Your task to perform on an android device: Show the shopping cart on costco.com. Add "razer blackwidow" to the cart on costco.com Image 0: 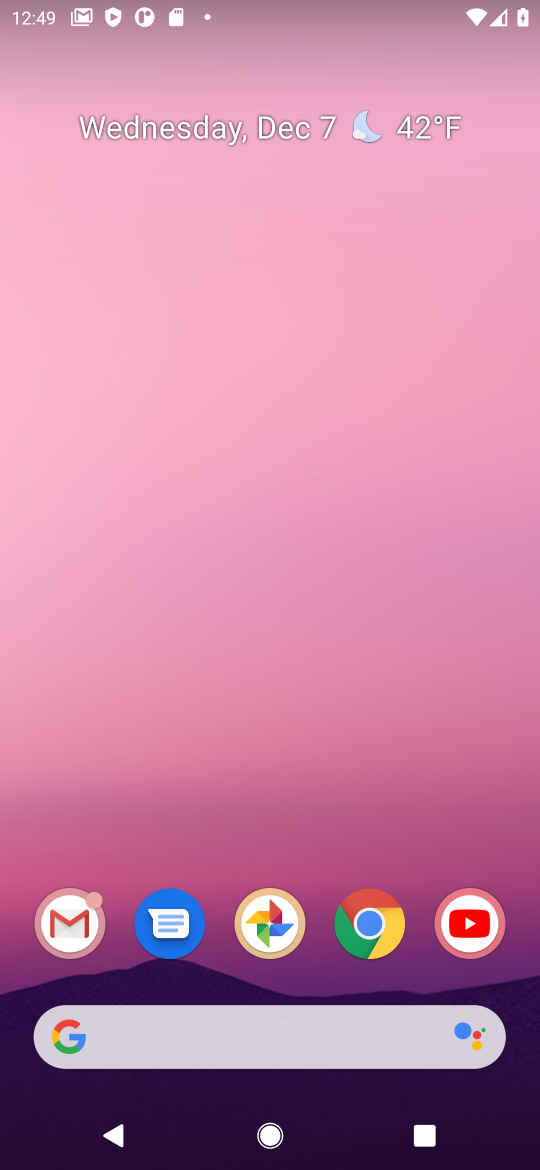
Step 0: click (367, 918)
Your task to perform on an android device: Show the shopping cart on costco.com. Add "razer blackwidow" to the cart on costco.com Image 1: 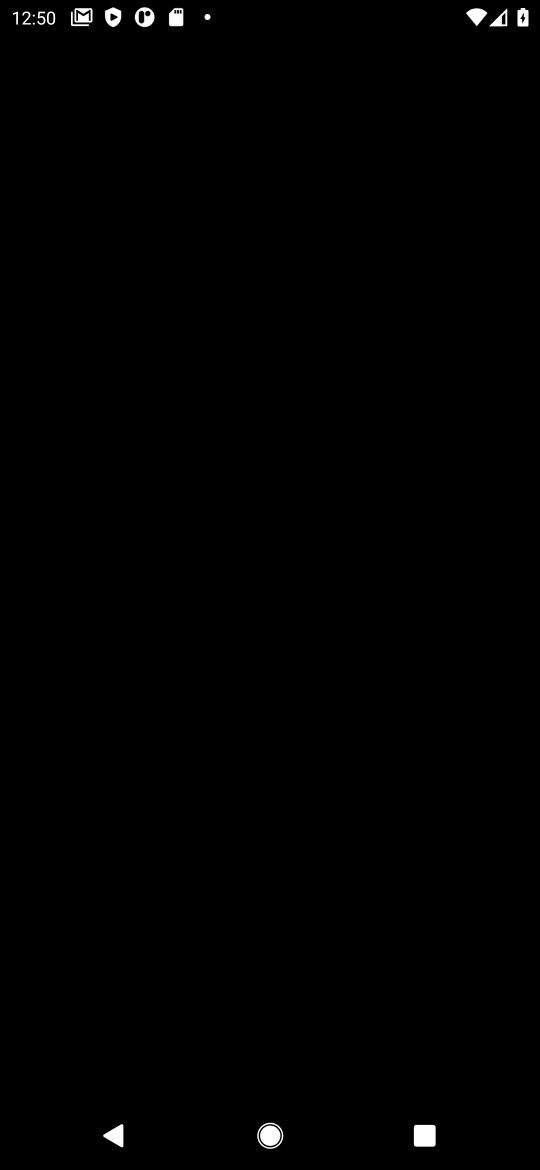
Step 1: press home button
Your task to perform on an android device: Show the shopping cart on costco.com. Add "razer blackwidow" to the cart on costco.com Image 2: 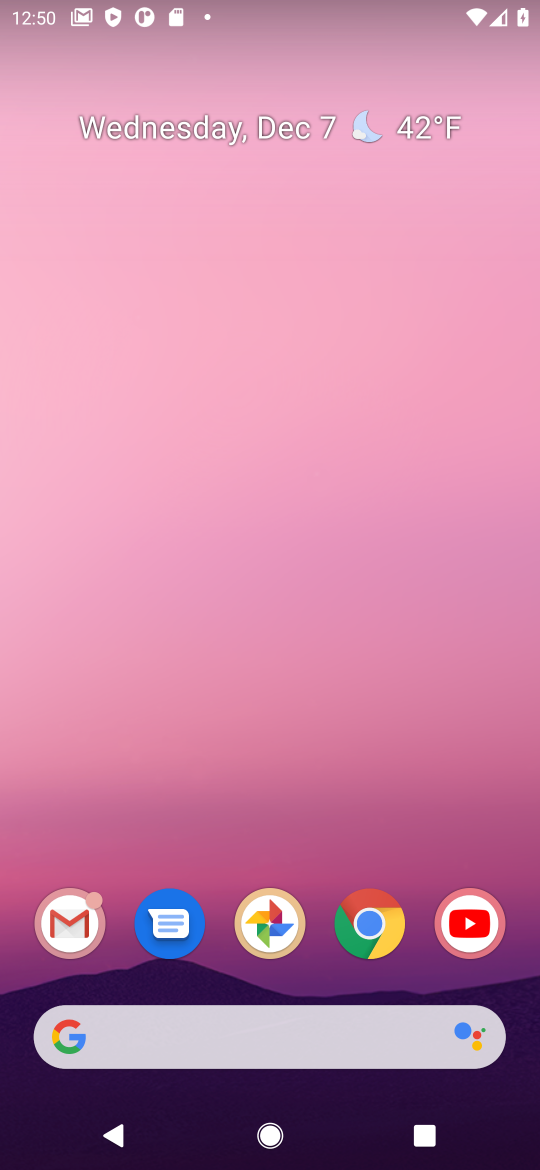
Step 2: click (363, 910)
Your task to perform on an android device: Show the shopping cart on costco.com. Add "razer blackwidow" to the cart on costco.com Image 3: 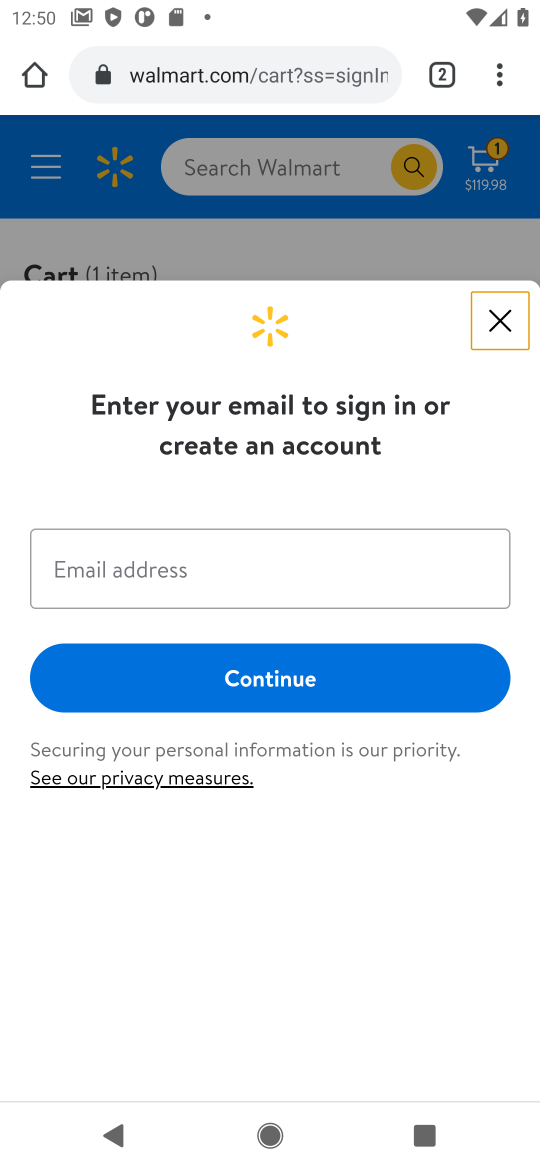
Step 3: click (501, 318)
Your task to perform on an android device: Show the shopping cart on costco.com. Add "razer blackwidow" to the cart on costco.com Image 4: 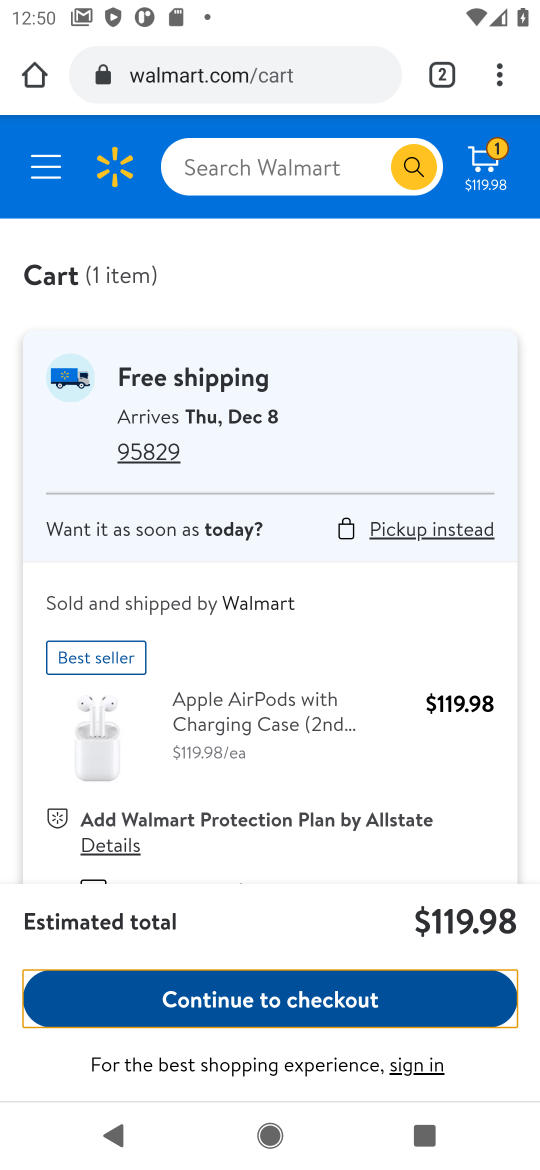
Step 4: click (302, 70)
Your task to perform on an android device: Show the shopping cart on costco.com. Add "razer blackwidow" to the cart on costco.com Image 5: 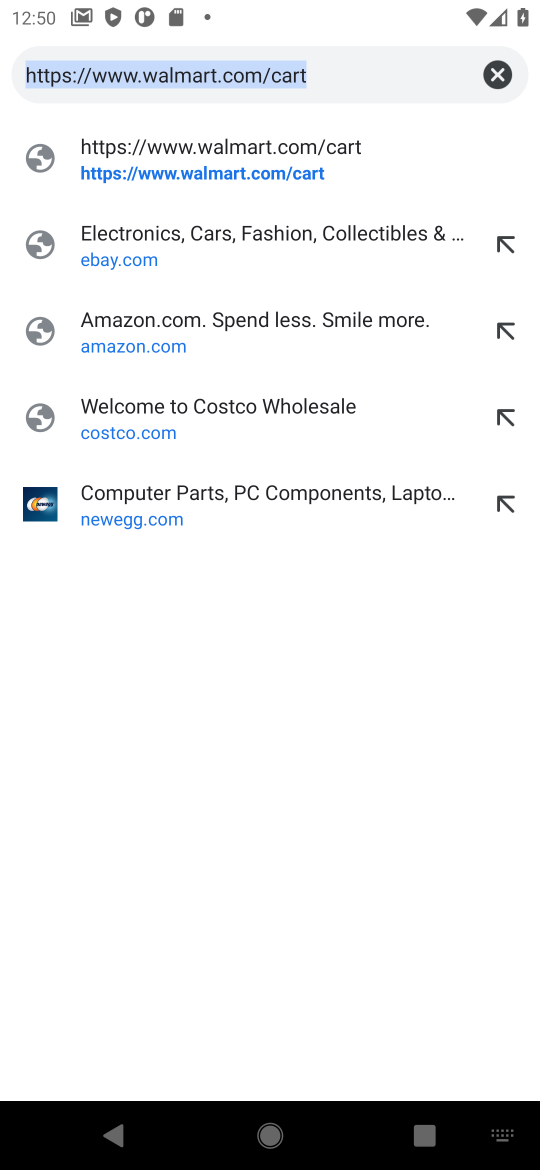
Step 5: click (113, 422)
Your task to perform on an android device: Show the shopping cart on costco.com. Add "razer blackwidow" to the cart on costco.com Image 6: 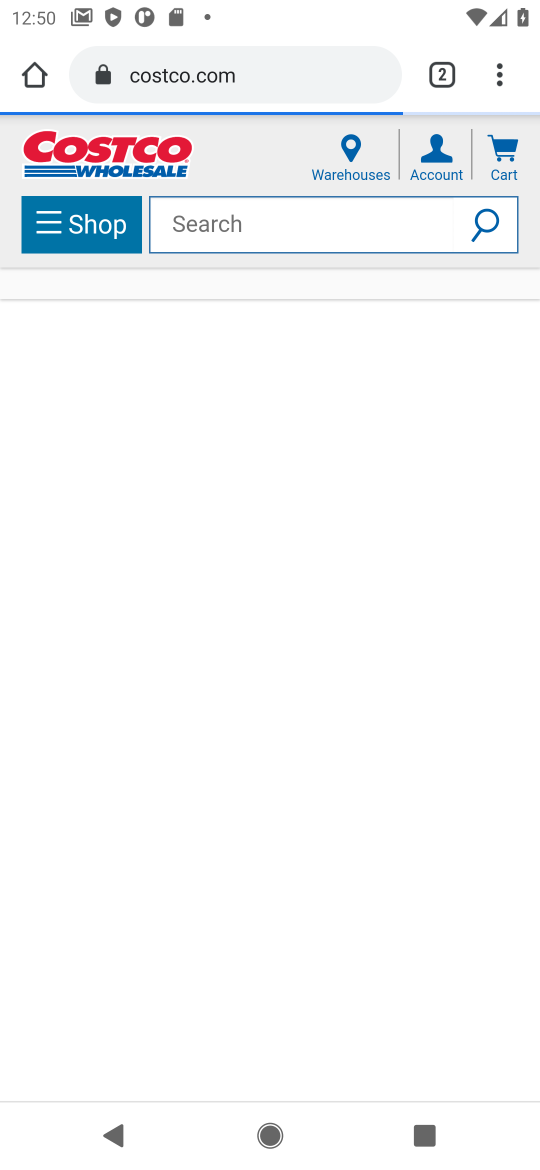
Step 6: click (327, 236)
Your task to perform on an android device: Show the shopping cart on costco.com. Add "razer blackwidow" to the cart on costco.com Image 7: 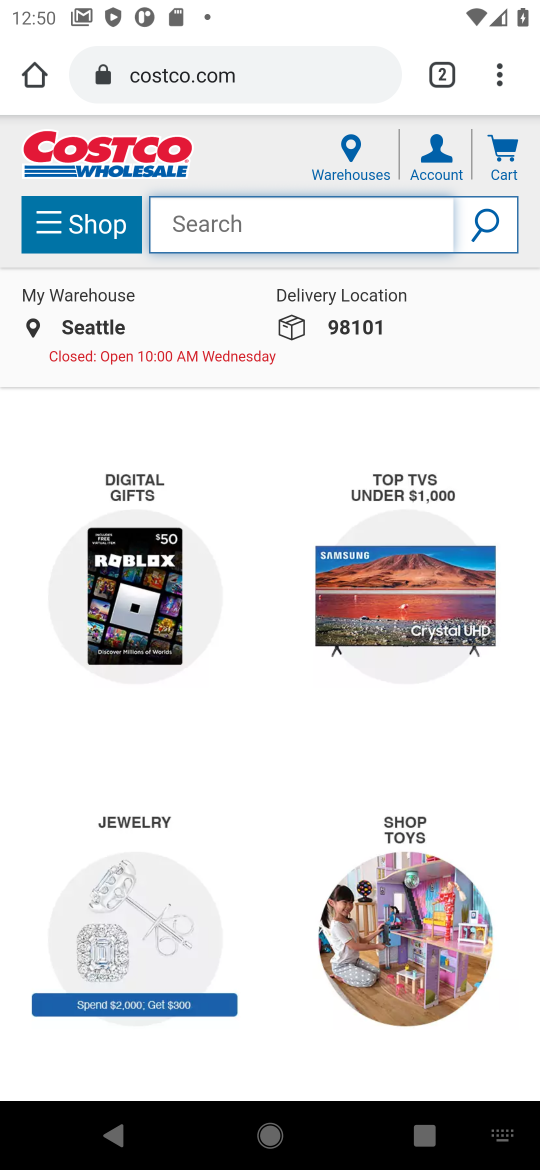
Step 7: type "razer blackwidow"
Your task to perform on an android device: Show the shopping cart on costco.com. Add "razer blackwidow" to the cart on costco.com Image 8: 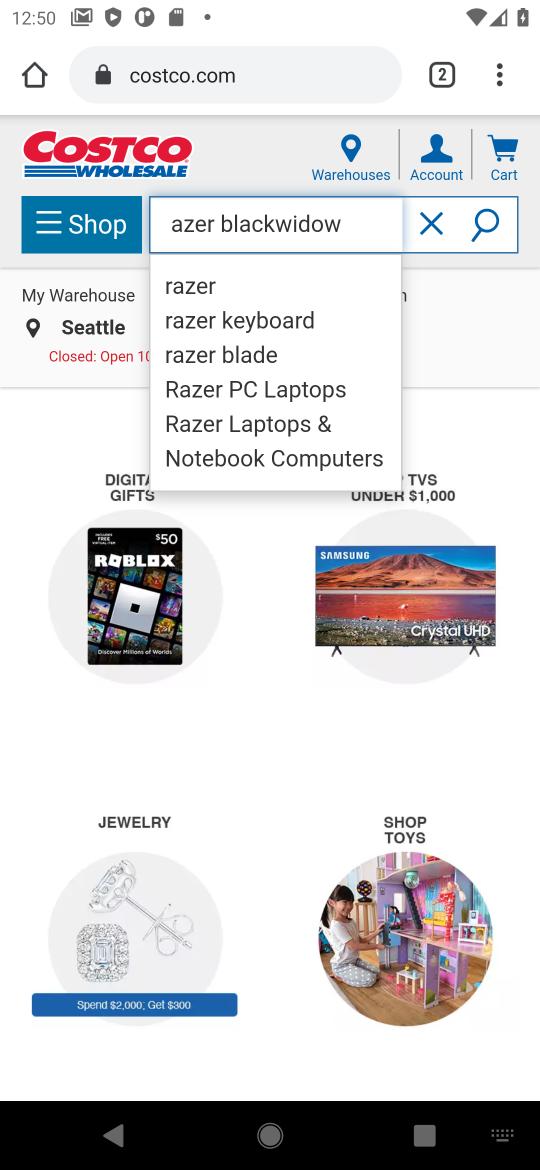
Step 8: click (202, 290)
Your task to perform on an android device: Show the shopping cart on costco.com. Add "razer blackwidow" to the cart on costco.com Image 9: 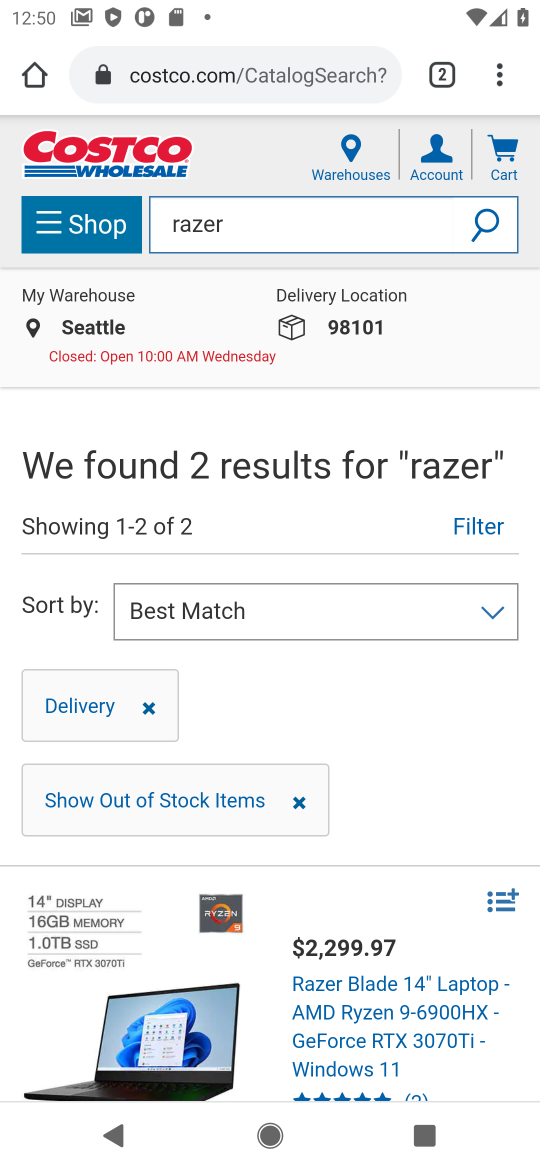
Step 9: click (171, 963)
Your task to perform on an android device: Show the shopping cart on costco.com. Add "razer blackwidow" to the cart on costco.com Image 10: 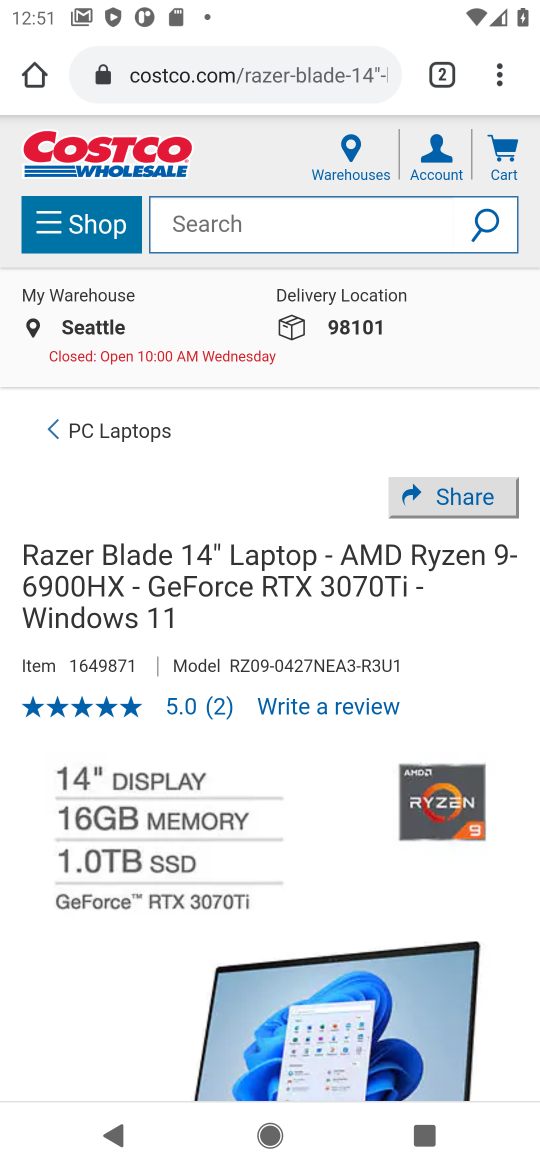
Step 10: click (376, 1041)
Your task to perform on an android device: Show the shopping cart on costco.com. Add "razer blackwidow" to the cart on costco.com Image 11: 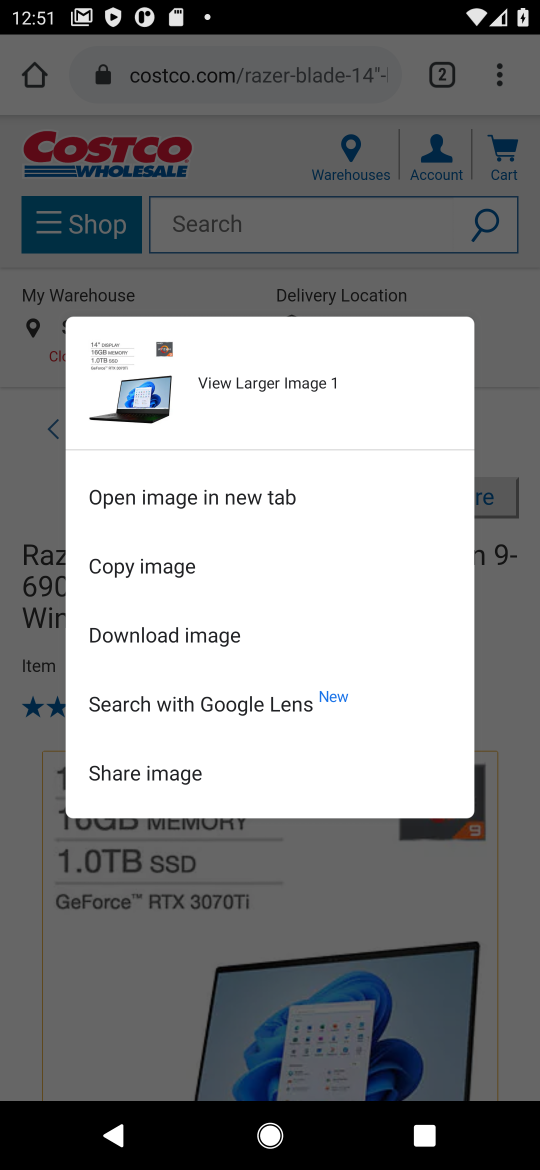
Step 11: click (519, 664)
Your task to perform on an android device: Show the shopping cart on costco.com. Add "razer blackwidow" to the cart on costco.com Image 12: 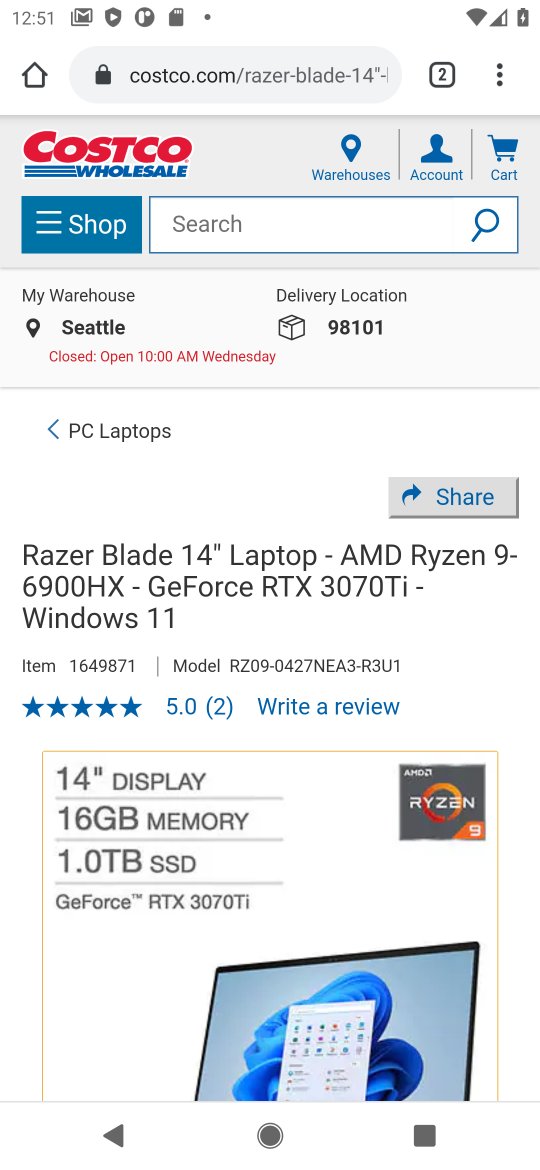
Step 12: drag from (476, 676) to (465, 120)
Your task to perform on an android device: Show the shopping cart on costco.com. Add "razer blackwidow" to the cart on costco.com Image 13: 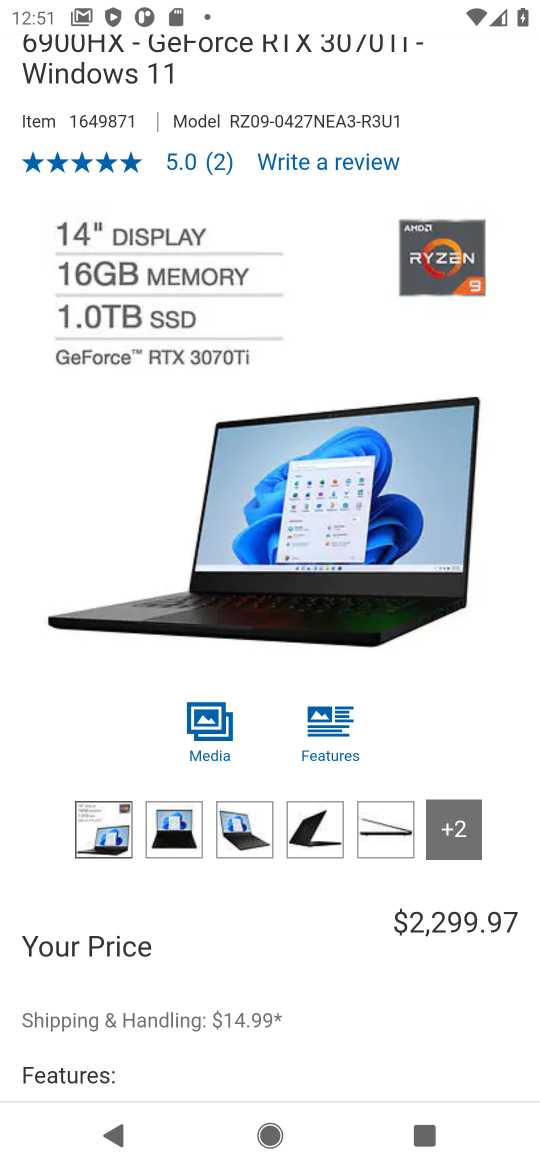
Step 13: drag from (348, 1034) to (294, 145)
Your task to perform on an android device: Show the shopping cart on costco.com. Add "razer blackwidow" to the cart on costco.com Image 14: 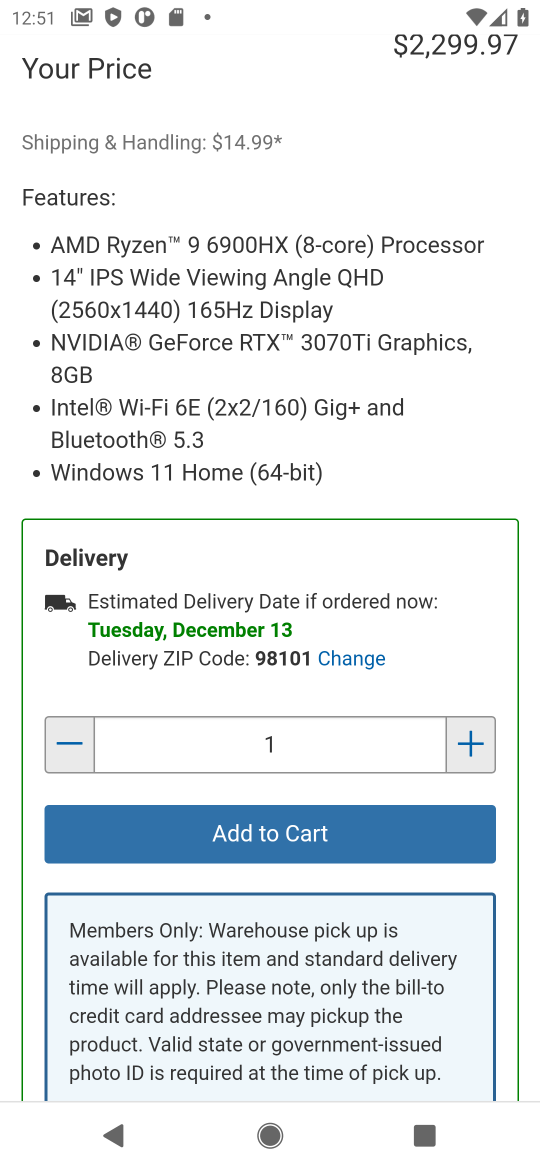
Step 14: click (356, 841)
Your task to perform on an android device: Show the shopping cart on costco.com. Add "razer blackwidow" to the cart on costco.com Image 15: 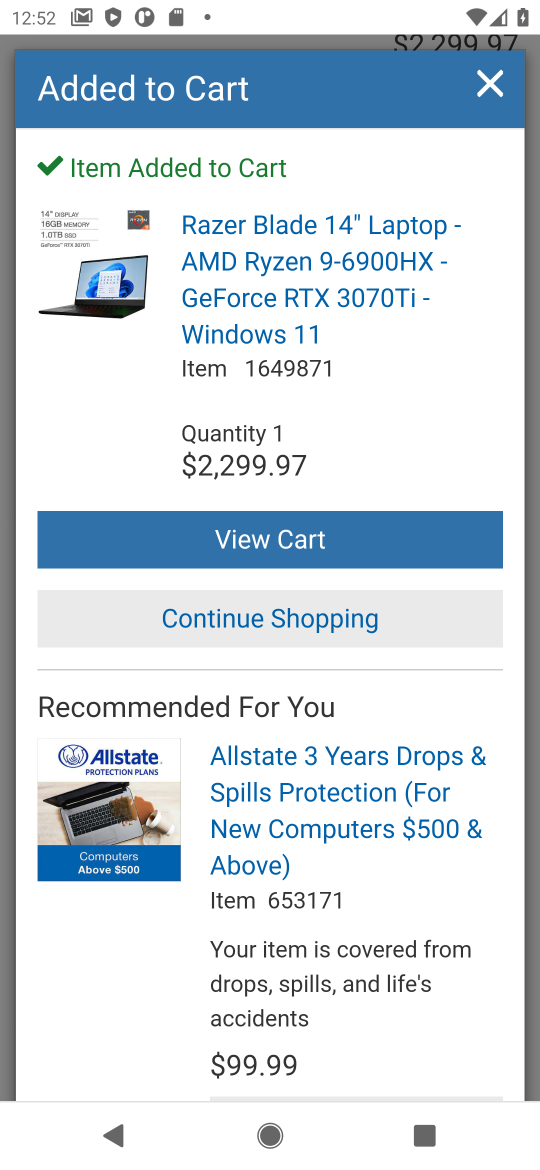
Step 15: task complete